Your task to perform on an android device: turn smart compose on in the gmail app Image 0: 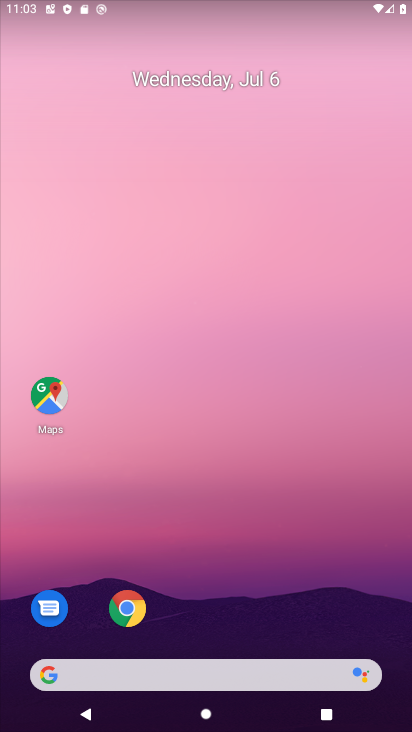
Step 0: drag from (183, 645) to (214, 158)
Your task to perform on an android device: turn smart compose on in the gmail app Image 1: 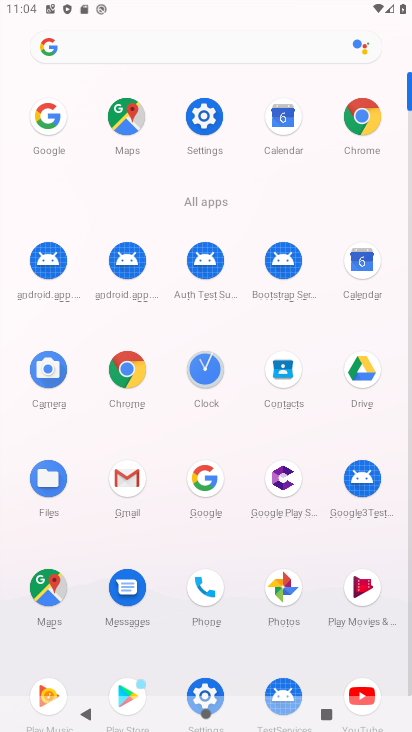
Step 1: click (282, 124)
Your task to perform on an android device: turn smart compose on in the gmail app Image 2: 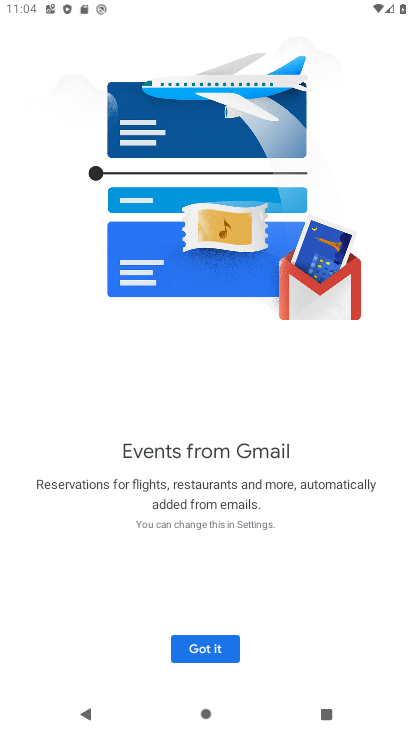
Step 2: press home button
Your task to perform on an android device: turn smart compose on in the gmail app Image 3: 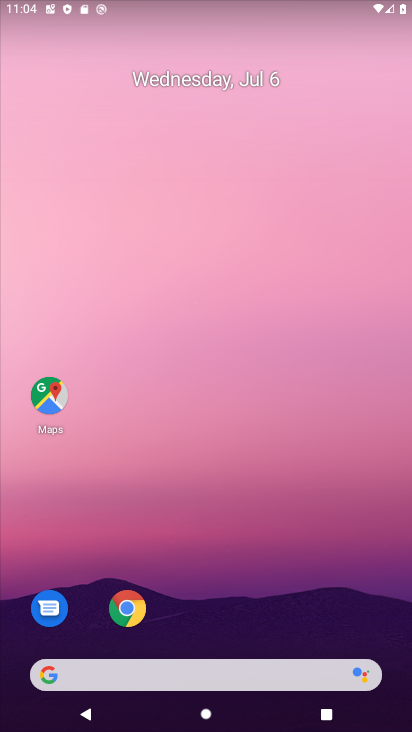
Step 3: drag from (136, 671) to (343, 15)
Your task to perform on an android device: turn smart compose on in the gmail app Image 4: 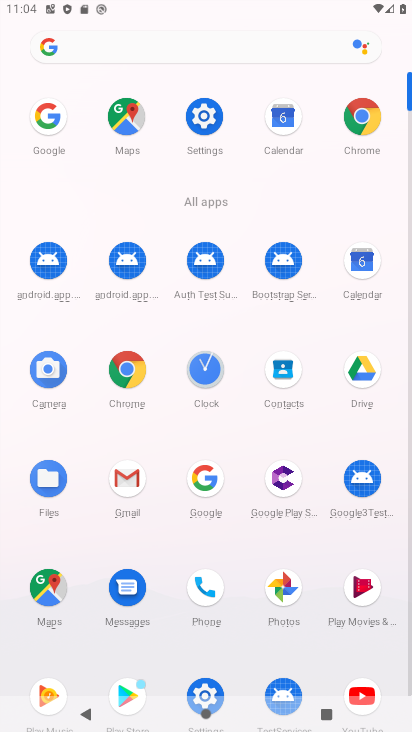
Step 4: click (128, 479)
Your task to perform on an android device: turn smart compose on in the gmail app Image 5: 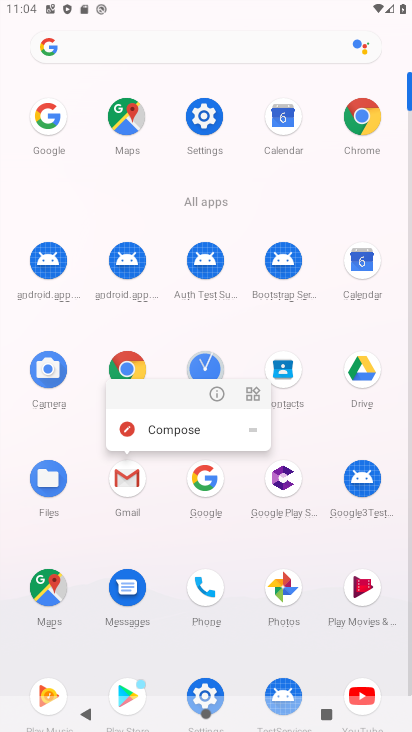
Step 5: click (128, 479)
Your task to perform on an android device: turn smart compose on in the gmail app Image 6: 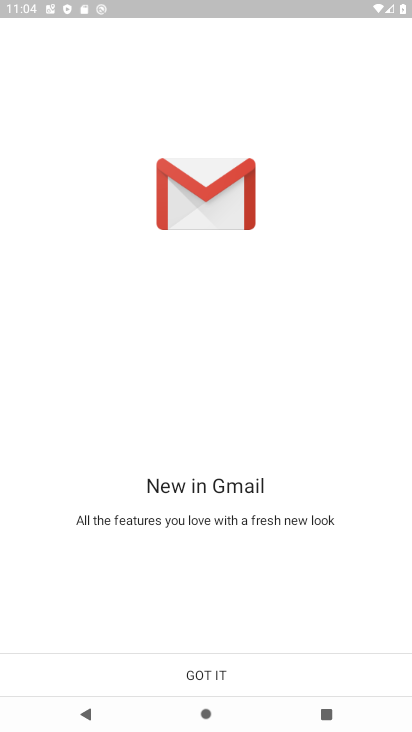
Step 6: click (191, 677)
Your task to perform on an android device: turn smart compose on in the gmail app Image 7: 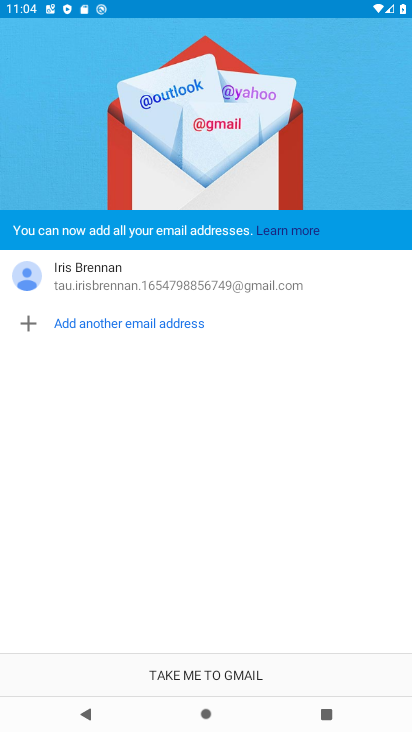
Step 7: click (192, 672)
Your task to perform on an android device: turn smart compose on in the gmail app Image 8: 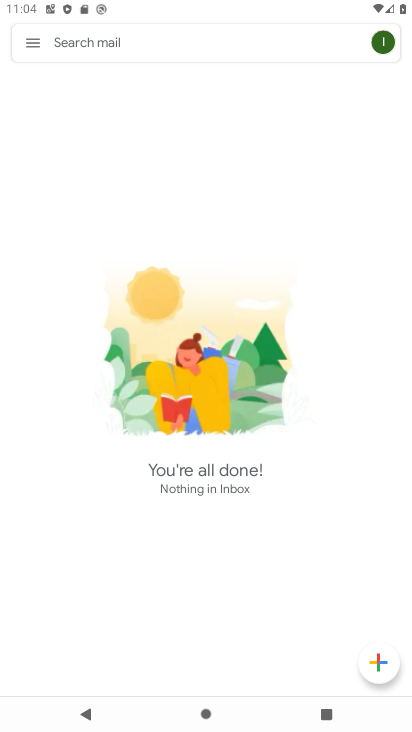
Step 8: click (32, 42)
Your task to perform on an android device: turn smart compose on in the gmail app Image 9: 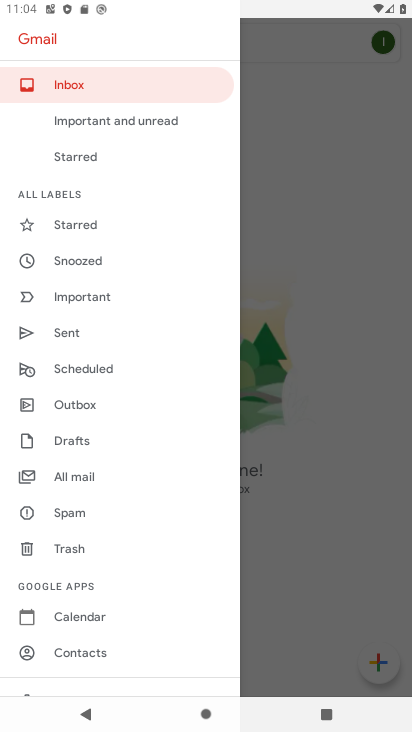
Step 9: drag from (94, 656) to (140, 339)
Your task to perform on an android device: turn smart compose on in the gmail app Image 10: 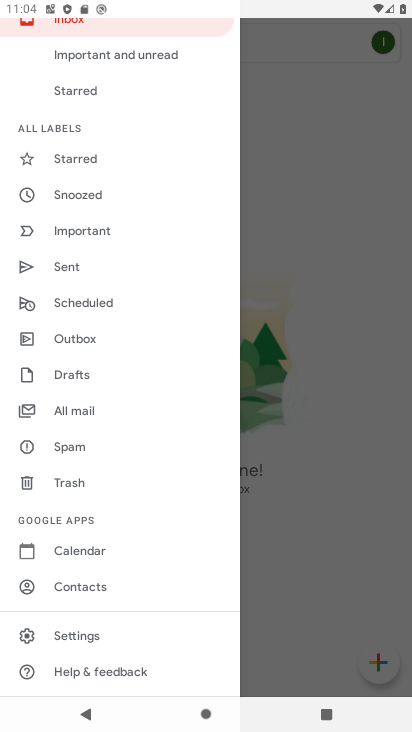
Step 10: click (62, 637)
Your task to perform on an android device: turn smart compose on in the gmail app Image 11: 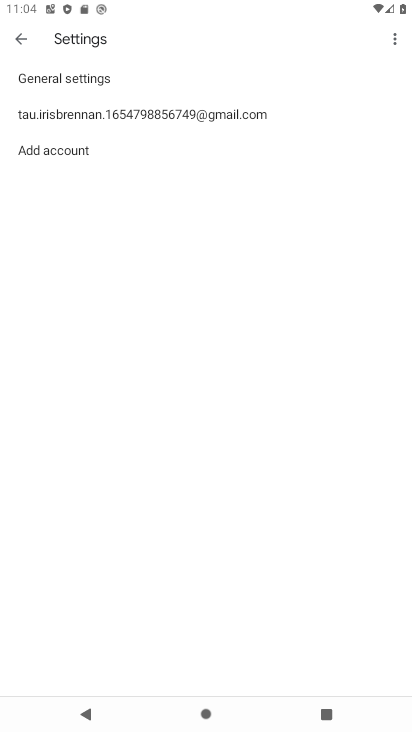
Step 11: click (93, 107)
Your task to perform on an android device: turn smart compose on in the gmail app Image 12: 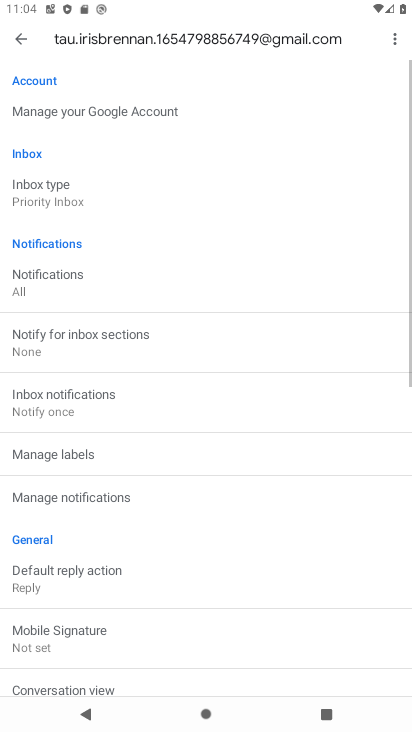
Step 12: task complete